Your task to perform on an android device: toggle notification dots Image 0: 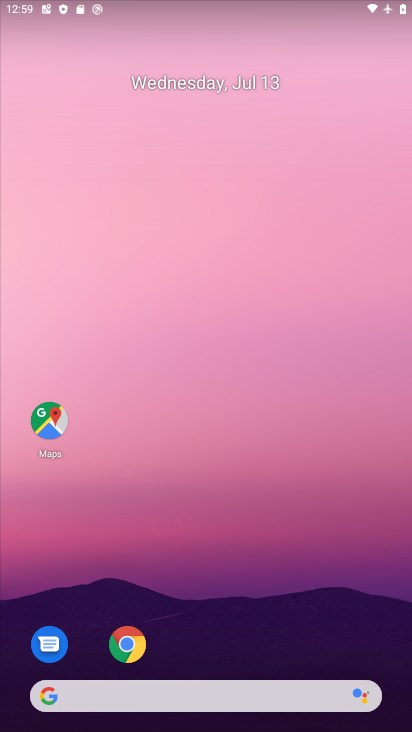
Step 0: drag from (324, 397) to (335, 70)
Your task to perform on an android device: toggle notification dots Image 1: 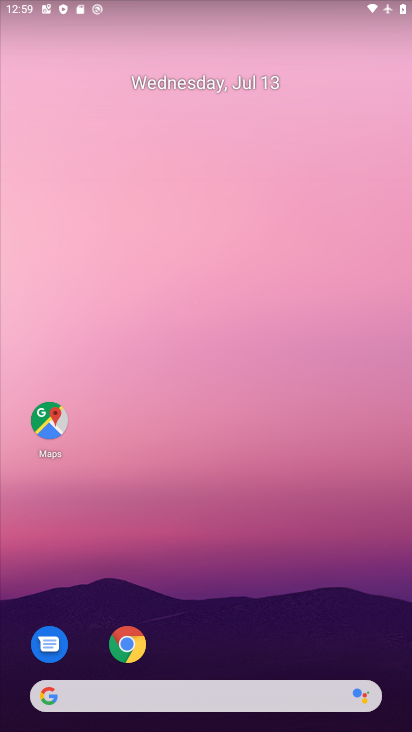
Step 1: drag from (267, 668) to (253, 120)
Your task to perform on an android device: toggle notification dots Image 2: 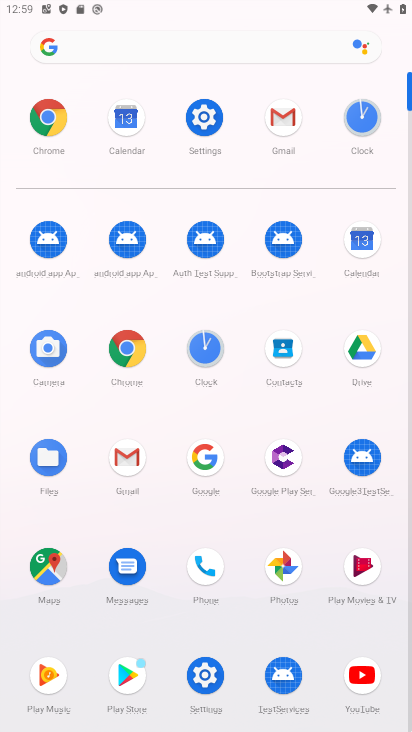
Step 2: click (207, 121)
Your task to perform on an android device: toggle notification dots Image 3: 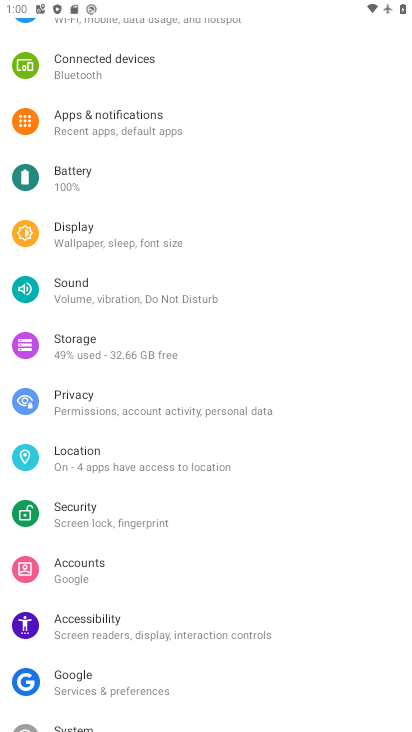
Step 3: click (156, 124)
Your task to perform on an android device: toggle notification dots Image 4: 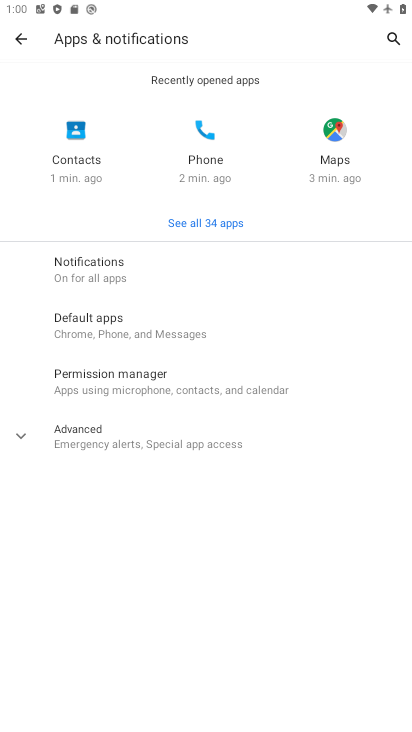
Step 4: click (185, 280)
Your task to perform on an android device: toggle notification dots Image 5: 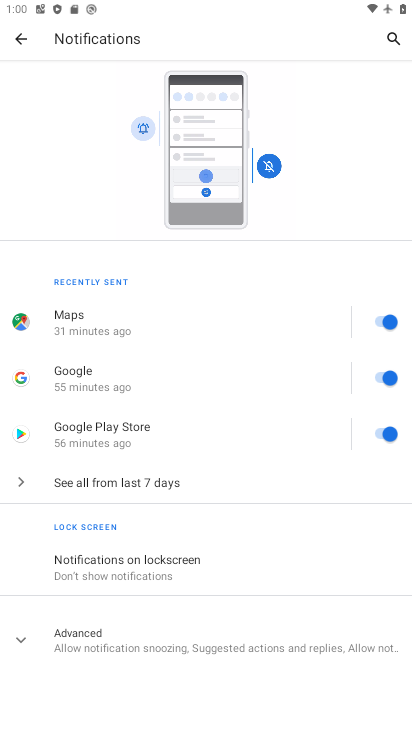
Step 5: click (224, 645)
Your task to perform on an android device: toggle notification dots Image 6: 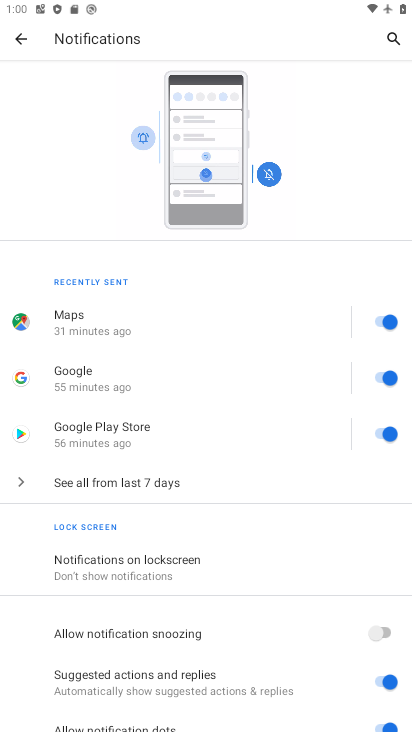
Step 6: click (386, 725)
Your task to perform on an android device: toggle notification dots Image 7: 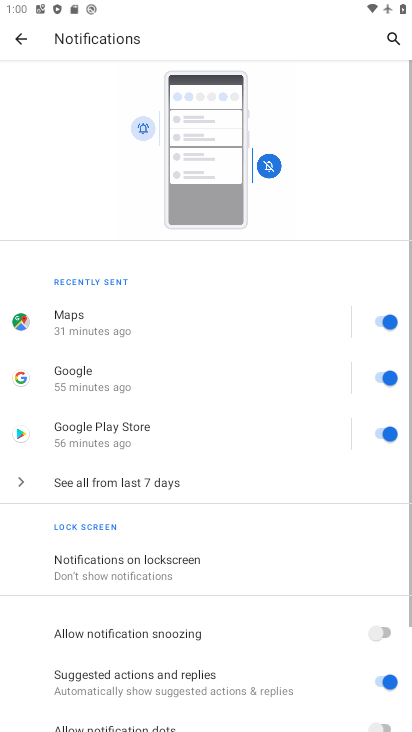
Step 7: task complete